Your task to perform on an android device: Open Reddit.com Image 0: 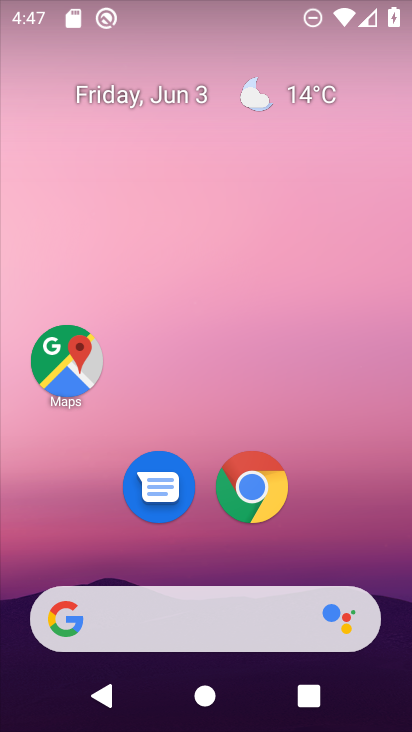
Step 0: click (254, 478)
Your task to perform on an android device: Open Reddit.com Image 1: 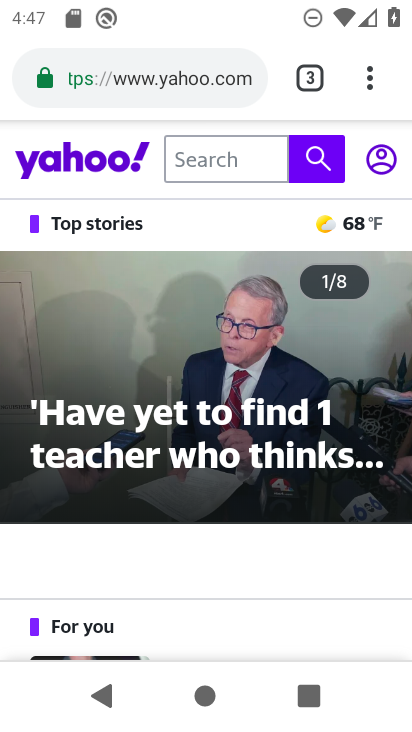
Step 1: click (307, 74)
Your task to perform on an android device: Open Reddit.com Image 2: 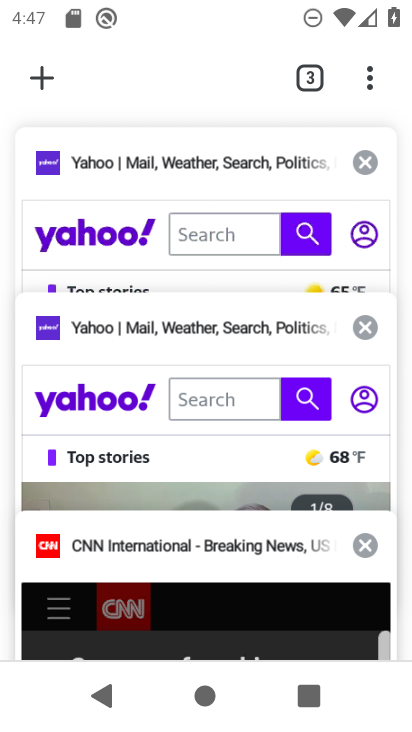
Step 2: click (39, 60)
Your task to perform on an android device: Open Reddit.com Image 3: 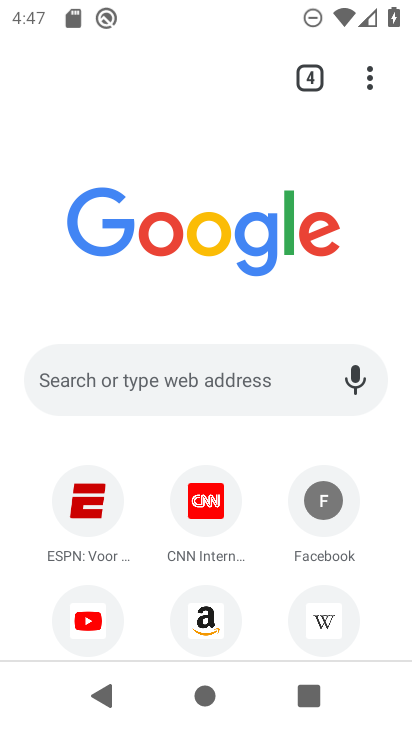
Step 3: click (174, 376)
Your task to perform on an android device: Open Reddit.com Image 4: 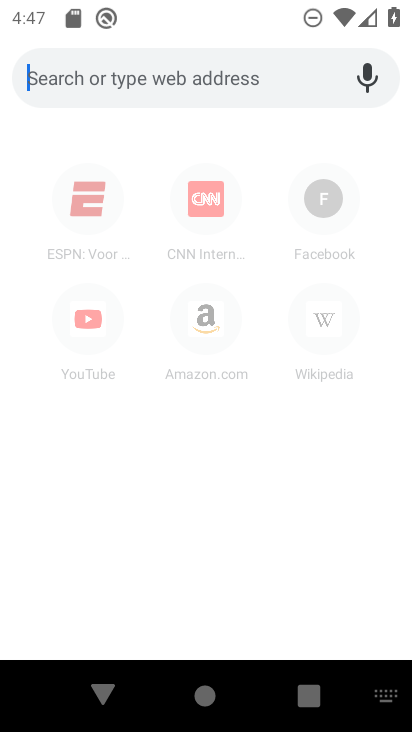
Step 4: type "reddit.com"
Your task to perform on an android device: Open Reddit.com Image 5: 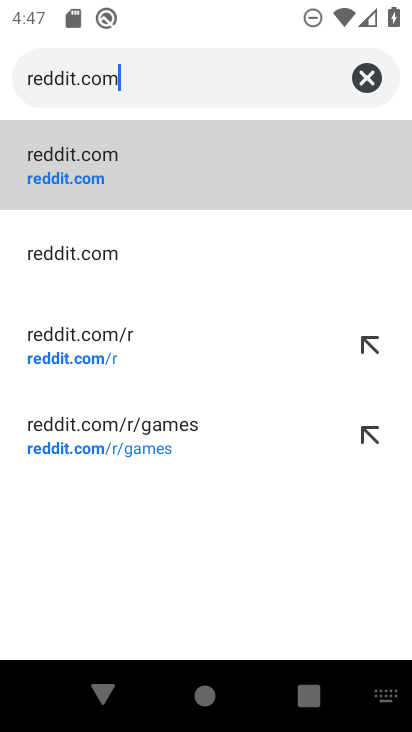
Step 5: click (65, 162)
Your task to perform on an android device: Open Reddit.com Image 6: 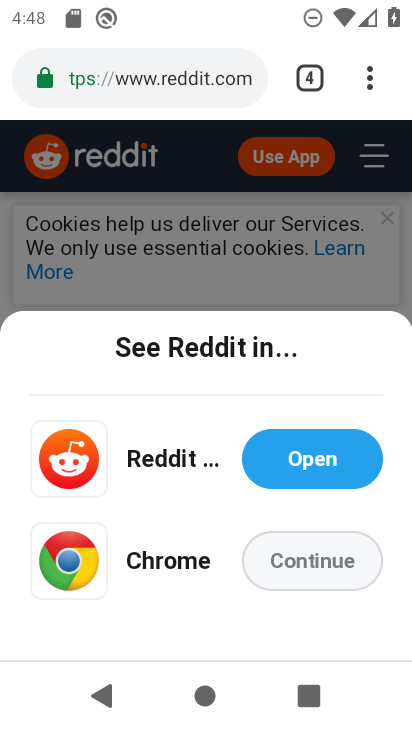
Step 6: task complete